Your task to perform on an android device: set default search engine in the chrome app Image 0: 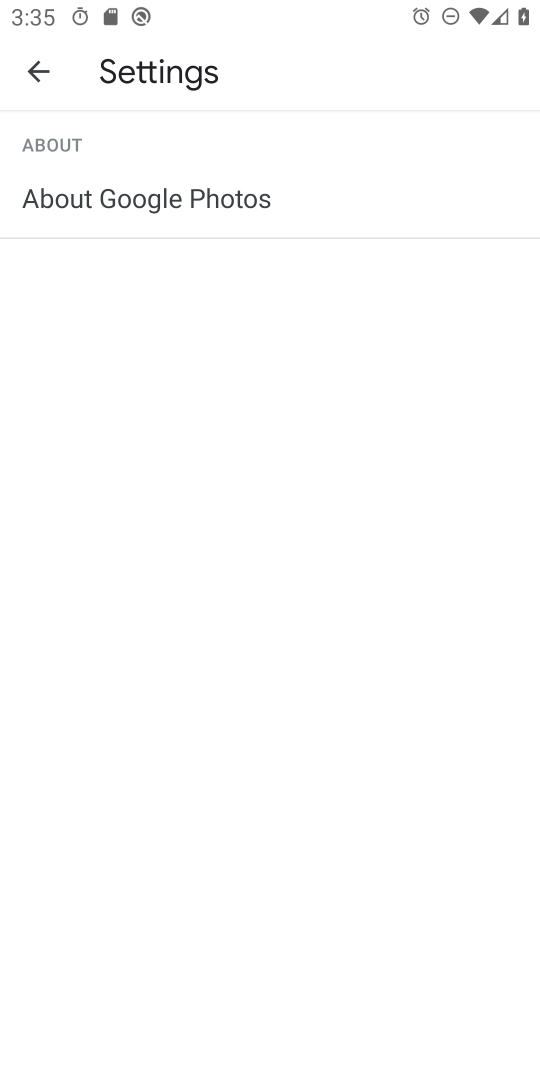
Step 0: press home button
Your task to perform on an android device: set default search engine in the chrome app Image 1: 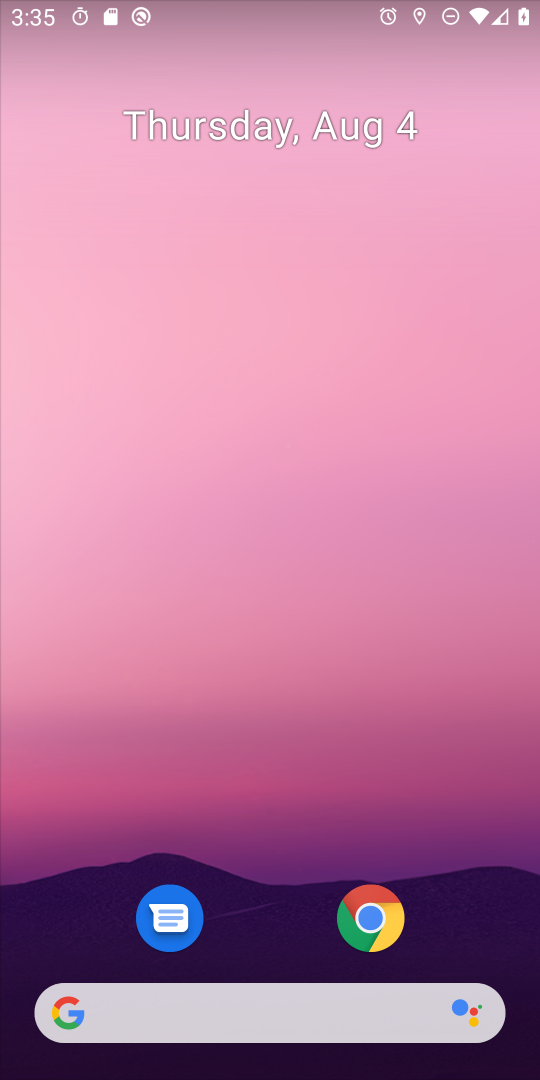
Step 1: click (348, 923)
Your task to perform on an android device: set default search engine in the chrome app Image 2: 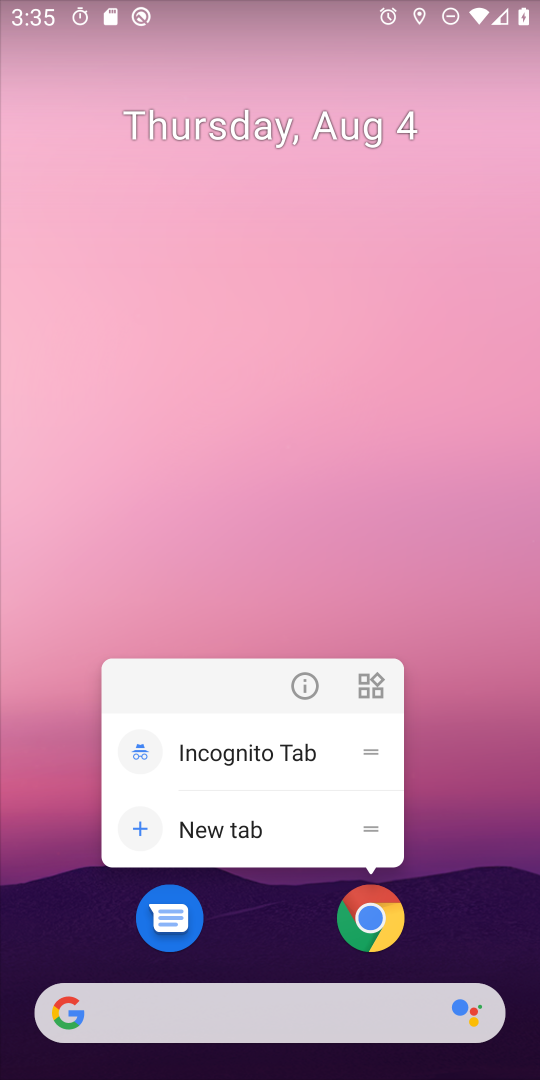
Step 2: click (348, 923)
Your task to perform on an android device: set default search engine in the chrome app Image 3: 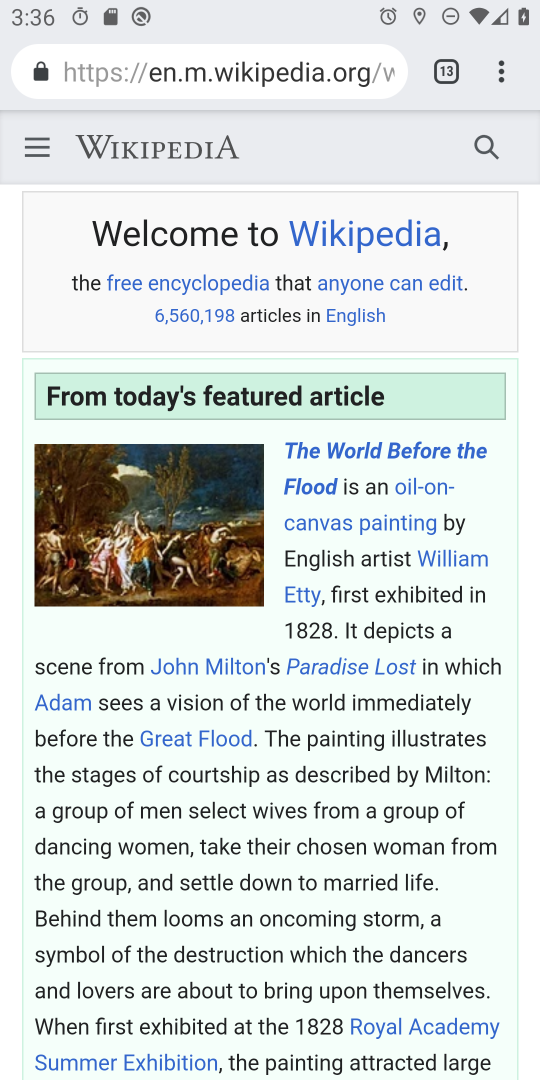
Step 3: click (491, 71)
Your task to perform on an android device: set default search engine in the chrome app Image 4: 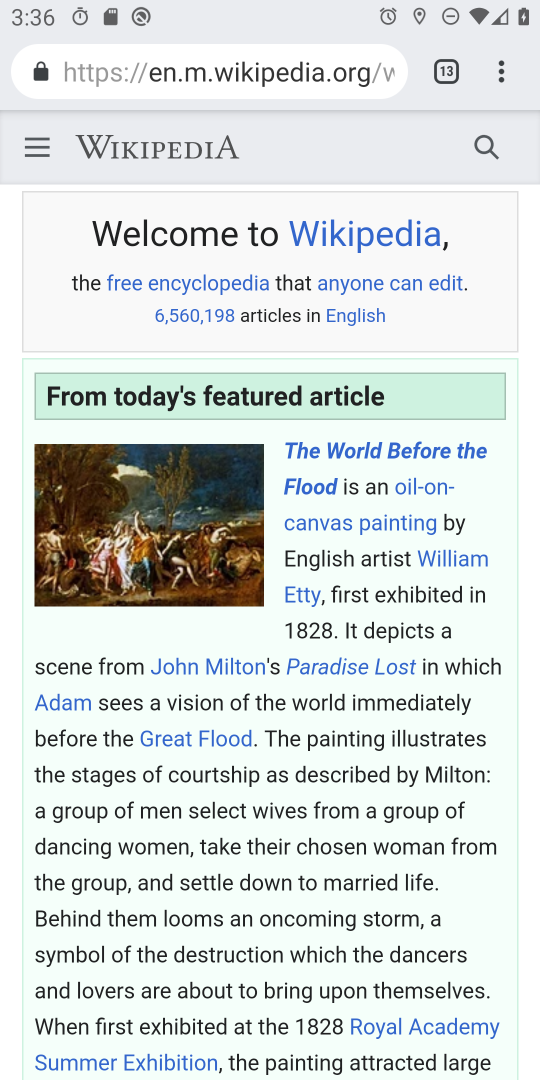
Step 4: drag from (491, 71) to (250, 872)
Your task to perform on an android device: set default search engine in the chrome app Image 5: 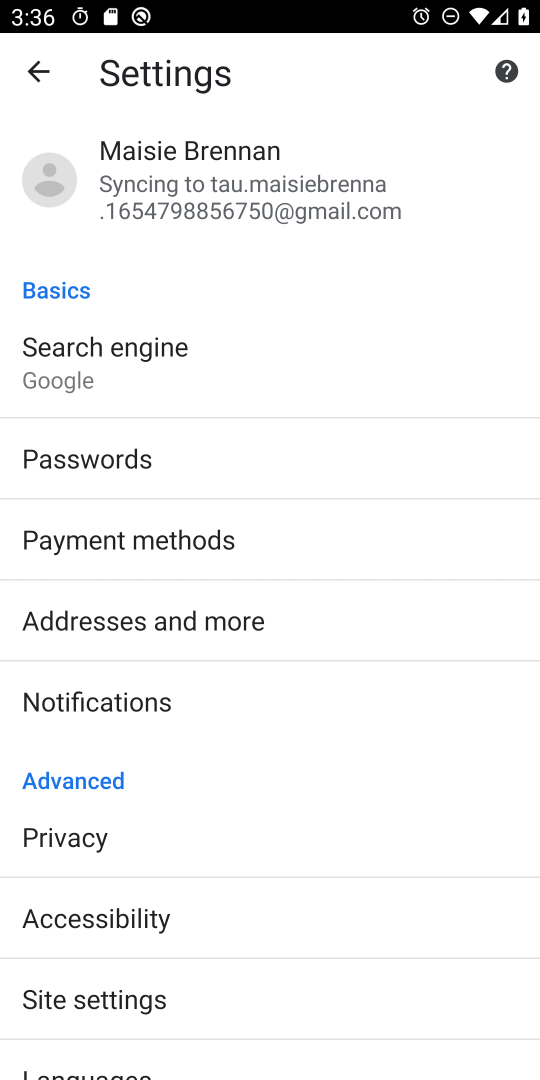
Step 5: click (114, 359)
Your task to perform on an android device: set default search engine in the chrome app Image 6: 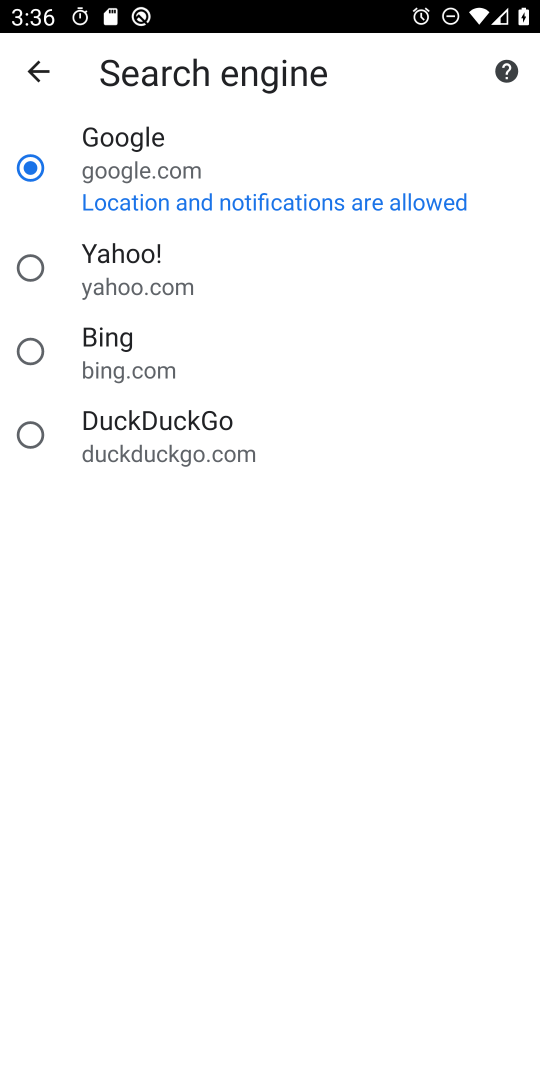
Step 6: task complete